Your task to perform on an android device: turn notification dots off Image 0: 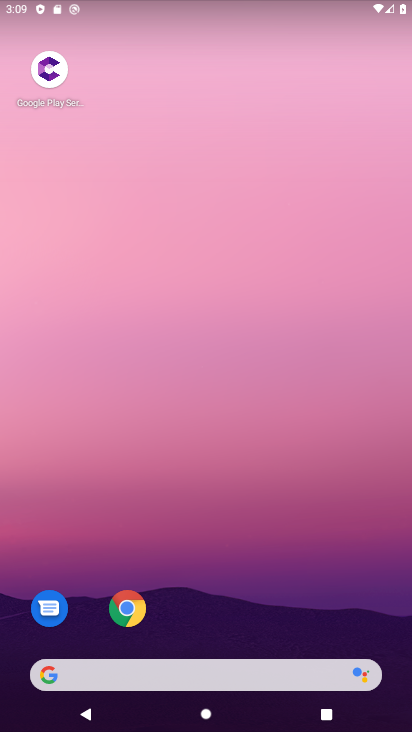
Step 0: drag from (137, 635) to (189, 238)
Your task to perform on an android device: turn notification dots off Image 1: 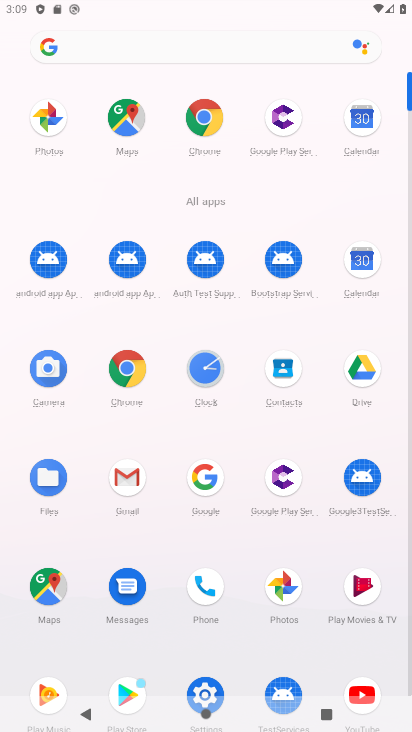
Step 1: click (206, 677)
Your task to perform on an android device: turn notification dots off Image 2: 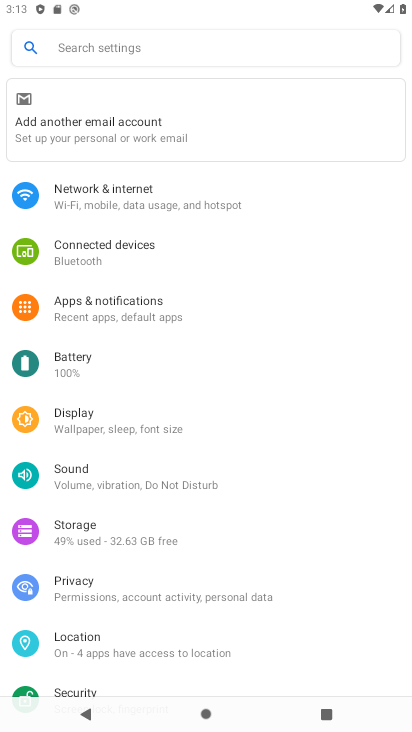
Step 2: click (217, 44)
Your task to perform on an android device: turn notification dots off Image 3: 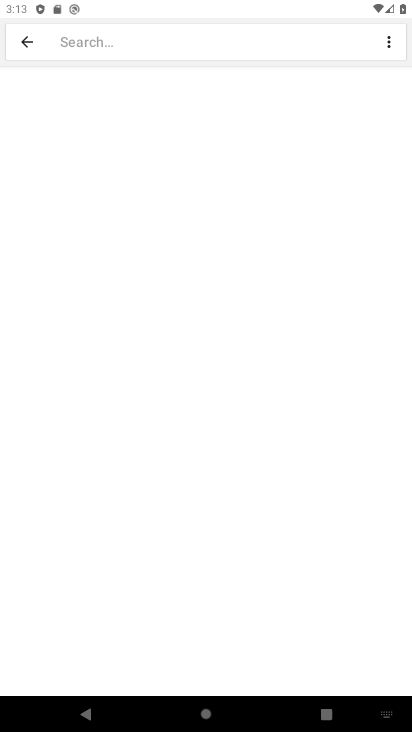
Step 3: task complete